Your task to perform on an android device: Open Chrome and go to settings Image 0: 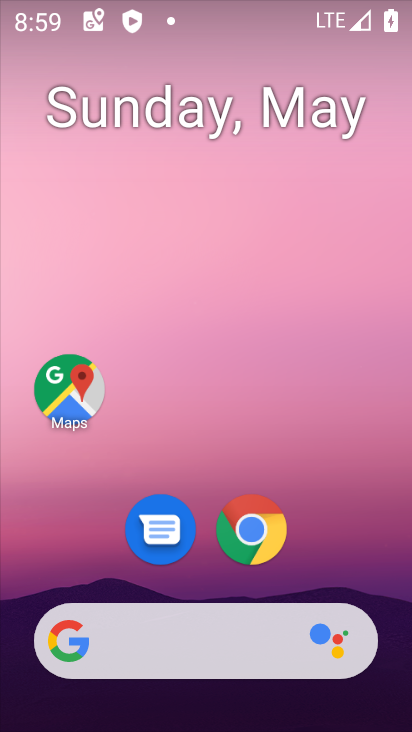
Step 0: click (253, 526)
Your task to perform on an android device: Open Chrome and go to settings Image 1: 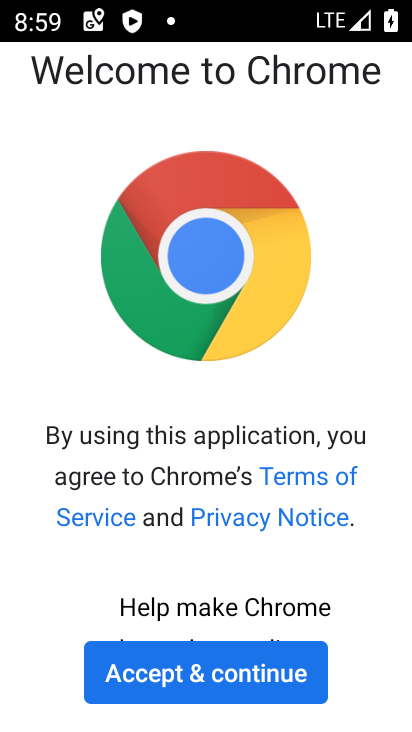
Step 1: click (208, 680)
Your task to perform on an android device: Open Chrome and go to settings Image 2: 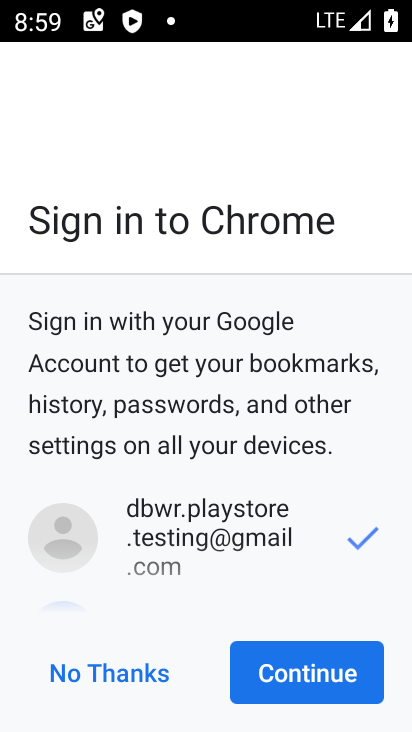
Step 2: click (306, 670)
Your task to perform on an android device: Open Chrome and go to settings Image 3: 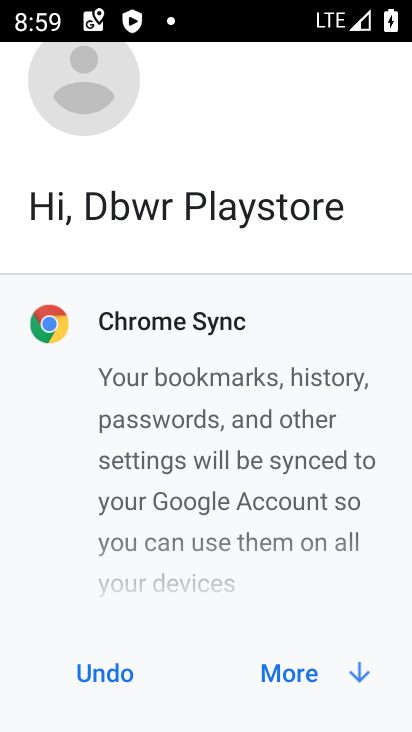
Step 3: click (306, 670)
Your task to perform on an android device: Open Chrome and go to settings Image 4: 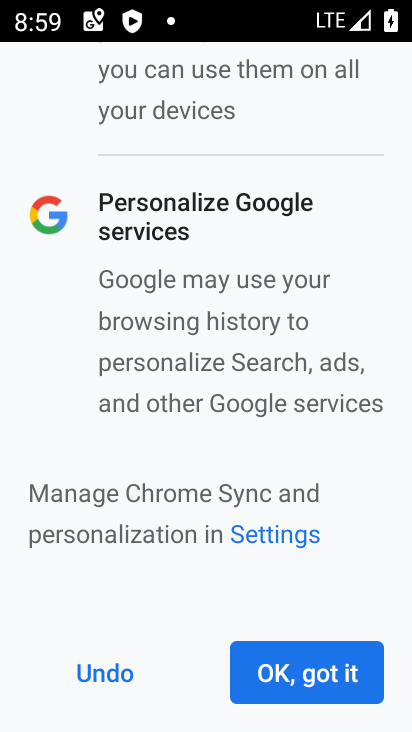
Step 4: click (306, 670)
Your task to perform on an android device: Open Chrome and go to settings Image 5: 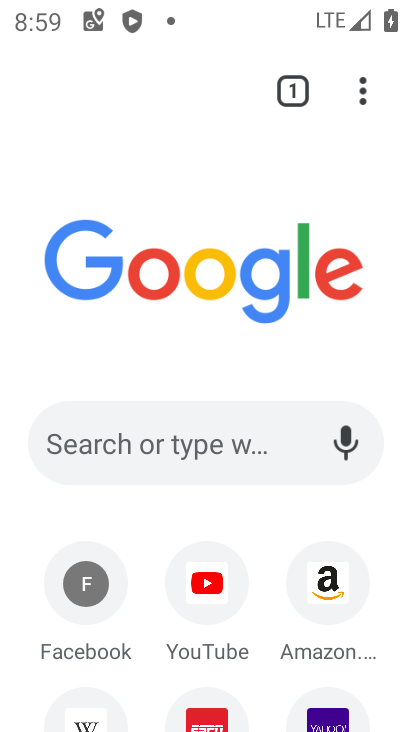
Step 5: click (366, 91)
Your task to perform on an android device: Open Chrome and go to settings Image 6: 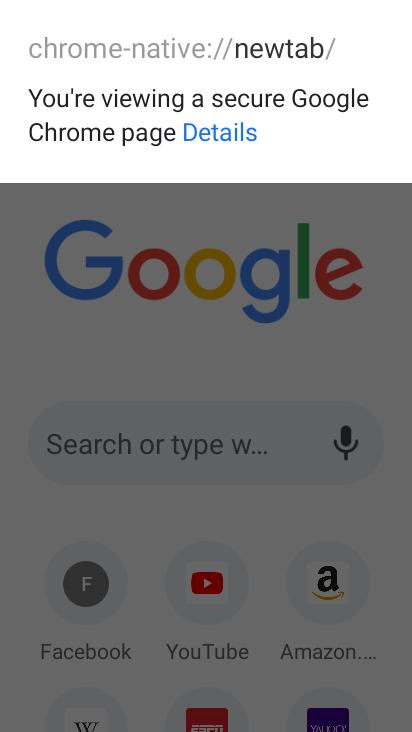
Step 6: click (383, 259)
Your task to perform on an android device: Open Chrome and go to settings Image 7: 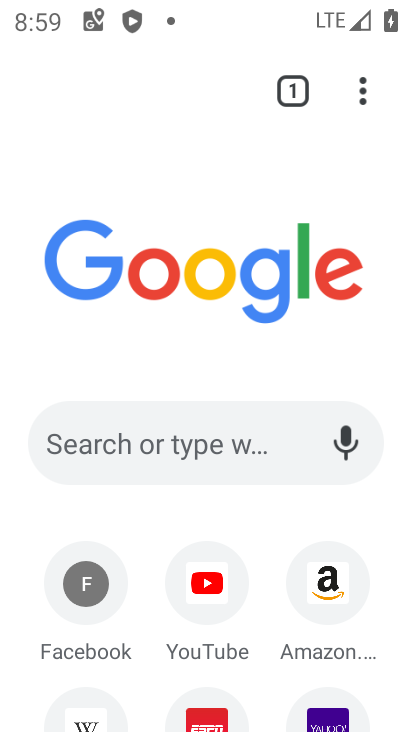
Step 7: click (353, 89)
Your task to perform on an android device: Open Chrome and go to settings Image 8: 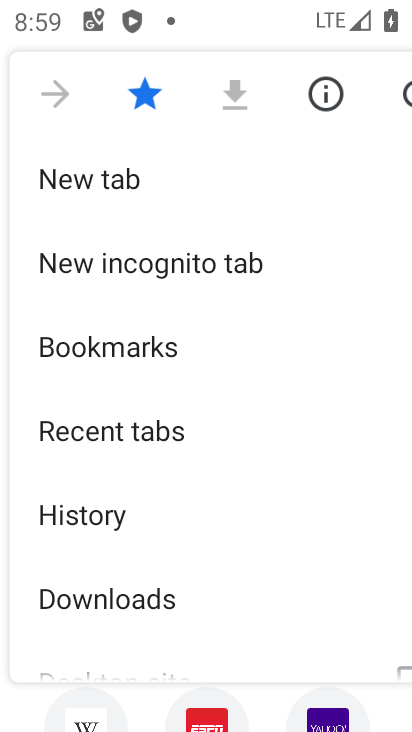
Step 8: drag from (211, 623) to (131, 304)
Your task to perform on an android device: Open Chrome and go to settings Image 9: 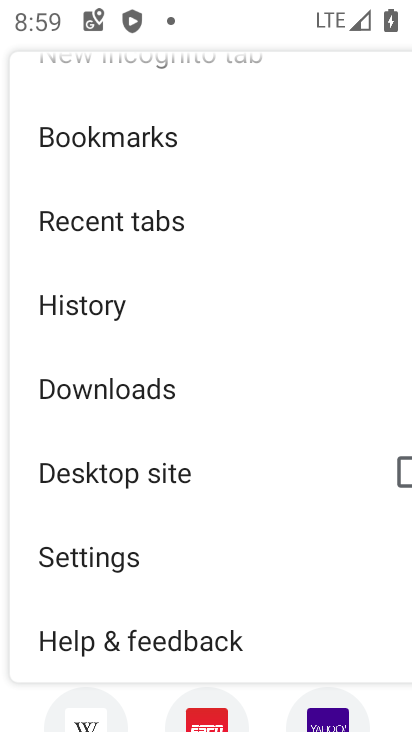
Step 9: click (141, 551)
Your task to perform on an android device: Open Chrome and go to settings Image 10: 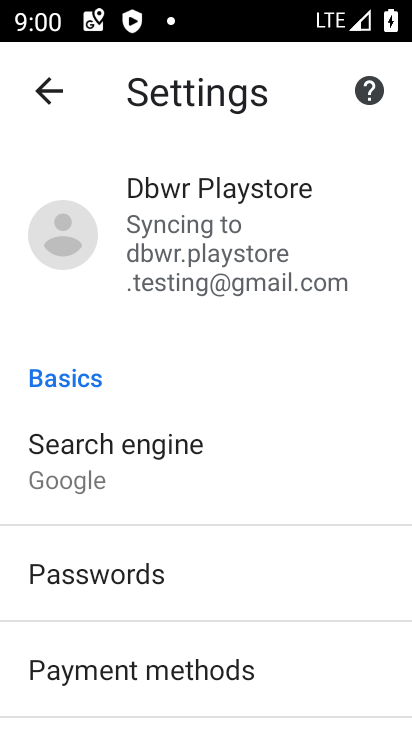
Step 10: task complete